Your task to perform on an android device: turn notification dots on Image 0: 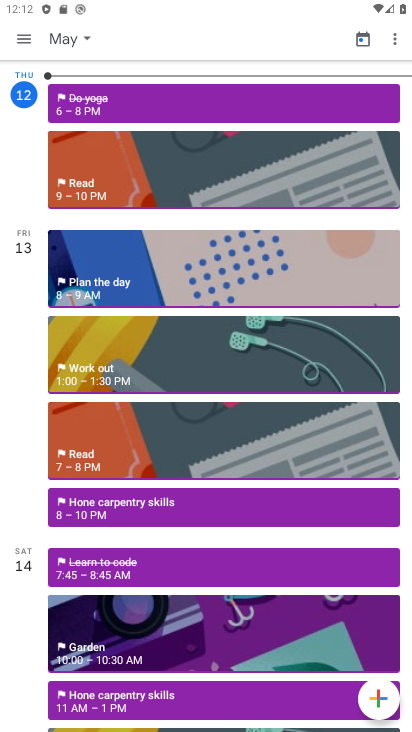
Step 0: press home button
Your task to perform on an android device: turn notification dots on Image 1: 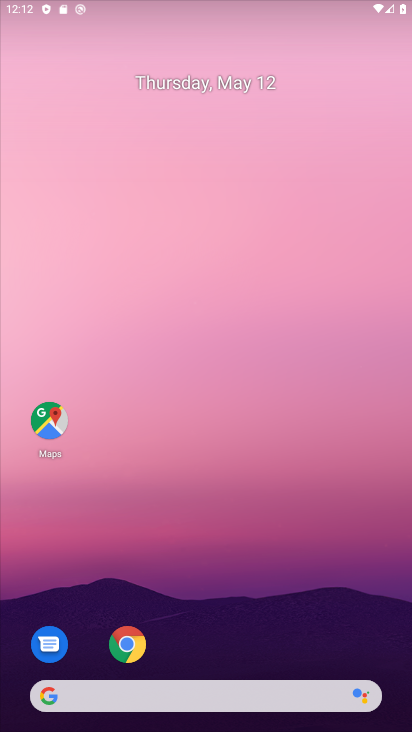
Step 1: drag from (281, 562) to (214, 34)
Your task to perform on an android device: turn notification dots on Image 2: 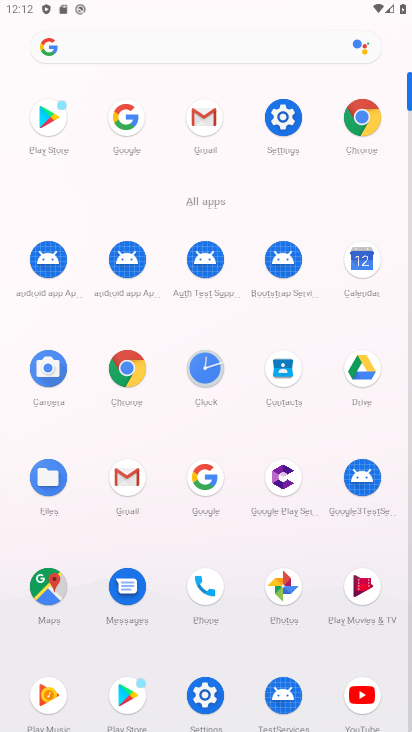
Step 2: click (280, 121)
Your task to perform on an android device: turn notification dots on Image 3: 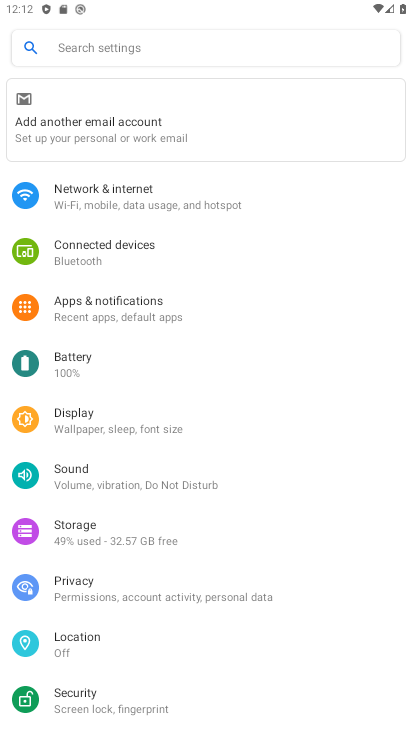
Step 3: click (159, 319)
Your task to perform on an android device: turn notification dots on Image 4: 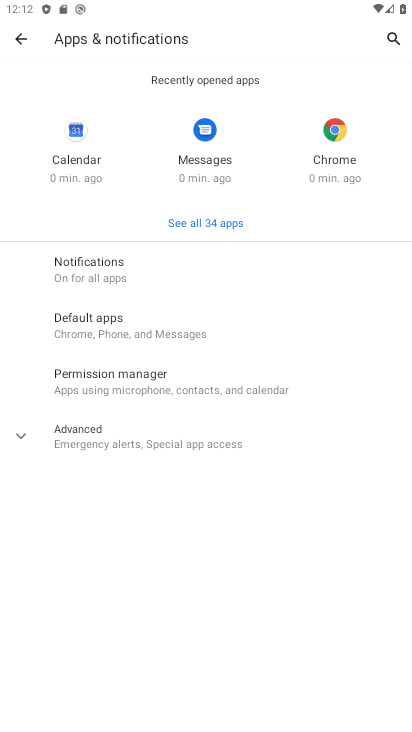
Step 4: click (125, 271)
Your task to perform on an android device: turn notification dots on Image 5: 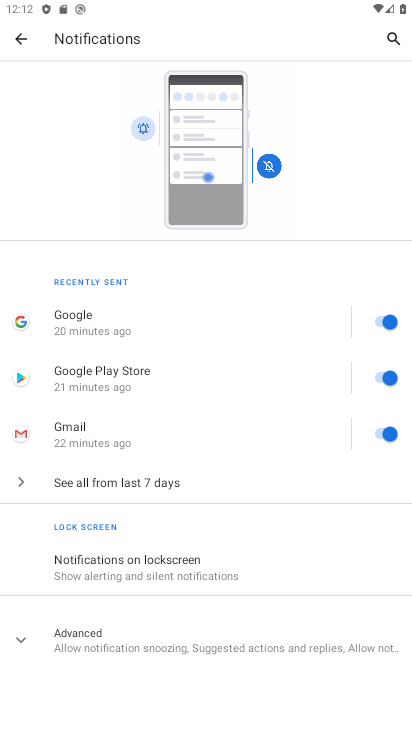
Step 5: drag from (197, 648) to (184, 598)
Your task to perform on an android device: turn notification dots on Image 6: 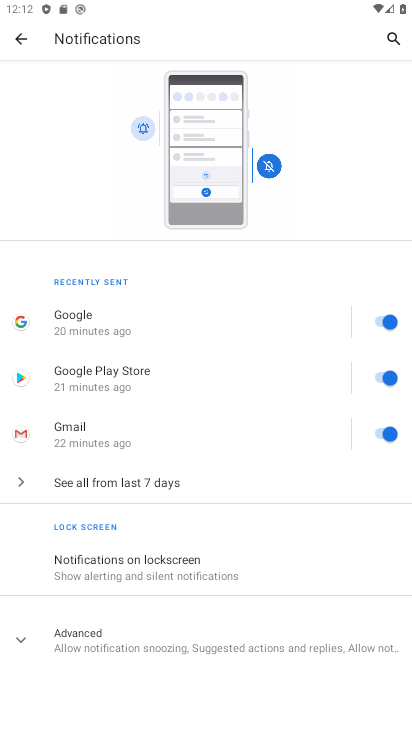
Step 6: click (188, 632)
Your task to perform on an android device: turn notification dots on Image 7: 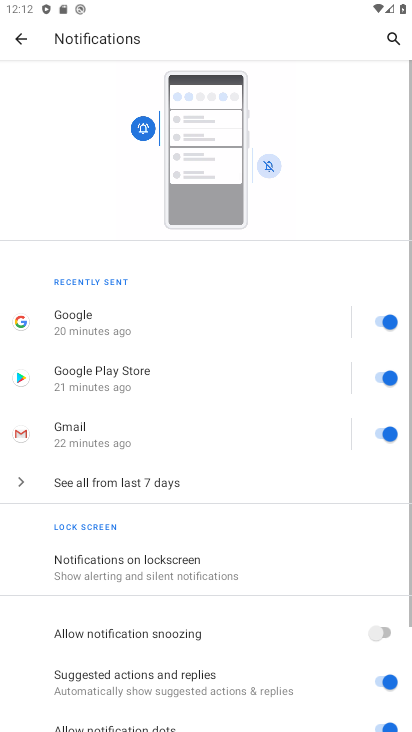
Step 7: task complete